Your task to perform on an android device: toggle show notifications on the lock screen Image 0: 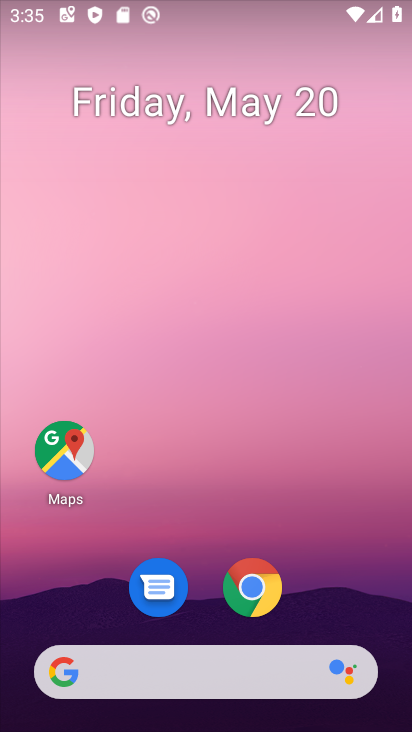
Step 0: drag from (311, 435) to (260, 0)
Your task to perform on an android device: toggle show notifications on the lock screen Image 1: 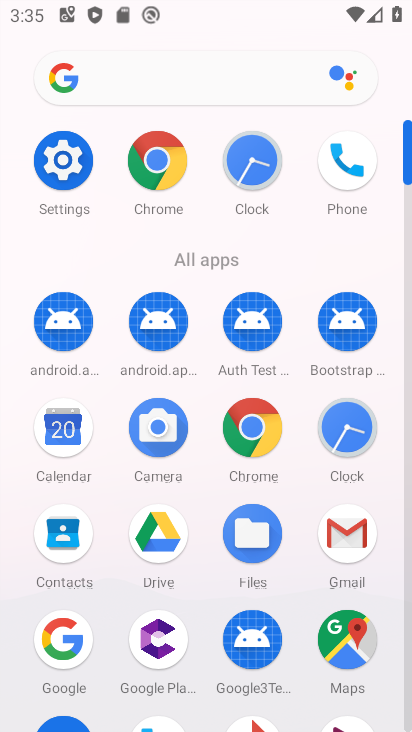
Step 1: click (61, 161)
Your task to perform on an android device: toggle show notifications on the lock screen Image 2: 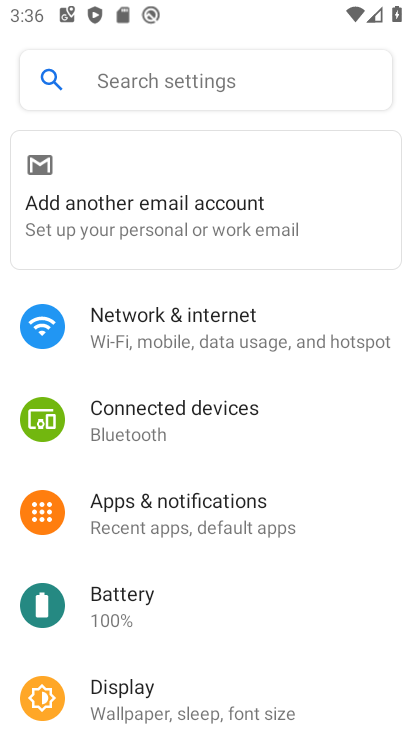
Step 2: drag from (274, 594) to (286, 287)
Your task to perform on an android device: toggle show notifications on the lock screen Image 3: 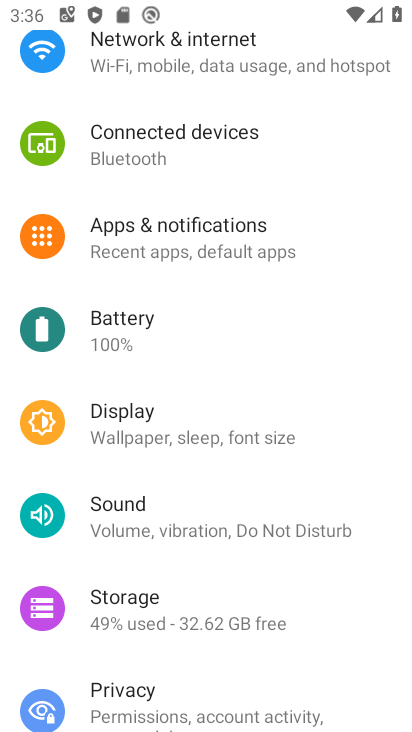
Step 3: drag from (268, 117) to (268, 324)
Your task to perform on an android device: toggle show notifications on the lock screen Image 4: 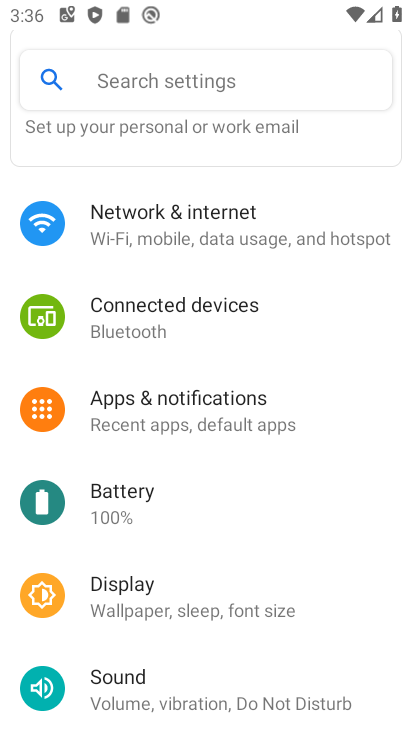
Step 4: click (249, 413)
Your task to perform on an android device: toggle show notifications on the lock screen Image 5: 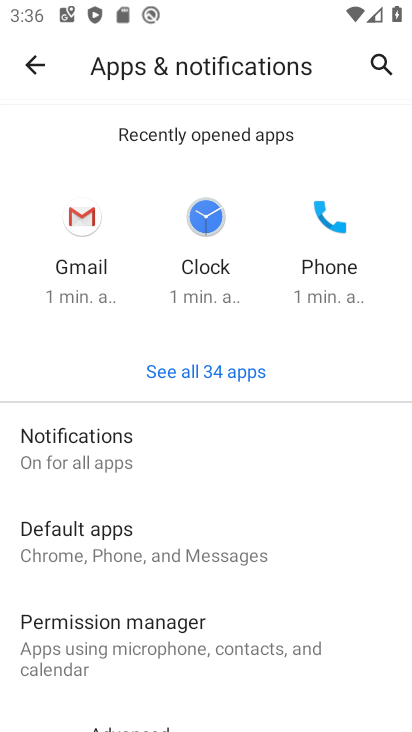
Step 5: click (168, 475)
Your task to perform on an android device: toggle show notifications on the lock screen Image 6: 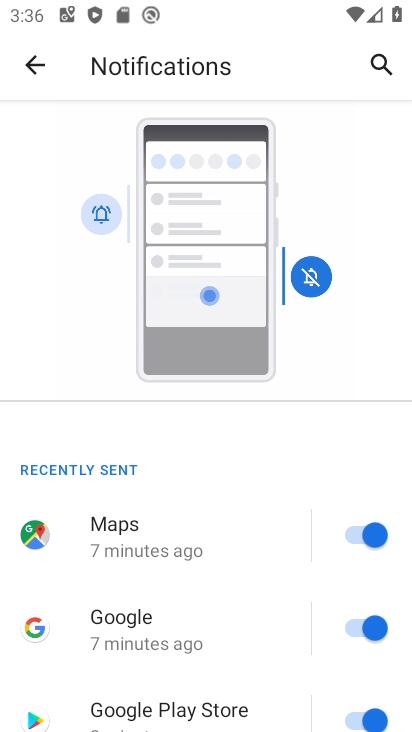
Step 6: drag from (177, 490) to (187, 113)
Your task to perform on an android device: toggle show notifications on the lock screen Image 7: 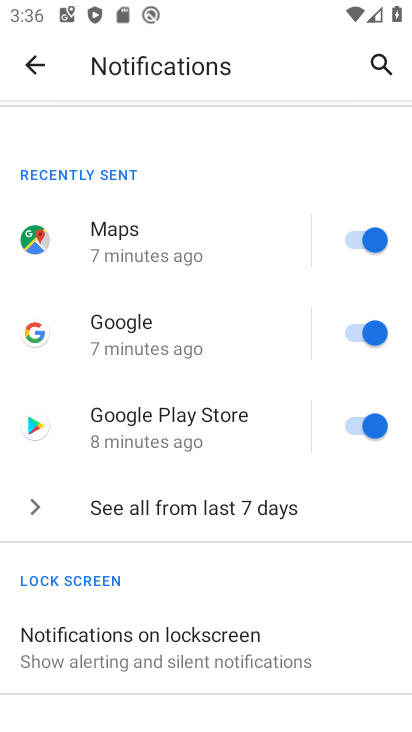
Step 7: drag from (254, 576) to (253, 177)
Your task to perform on an android device: toggle show notifications on the lock screen Image 8: 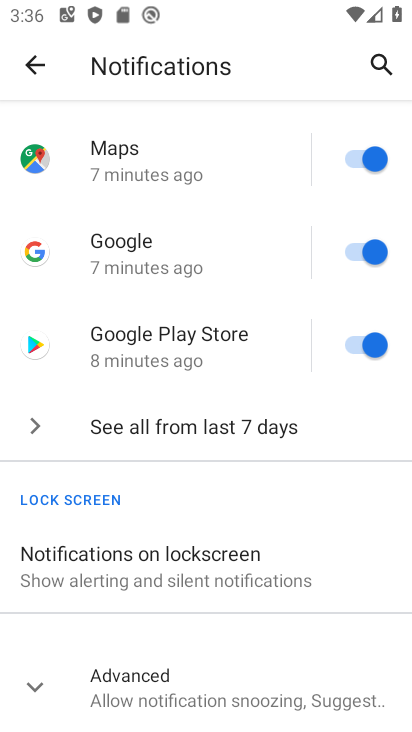
Step 8: click (234, 566)
Your task to perform on an android device: toggle show notifications on the lock screen Image 9: 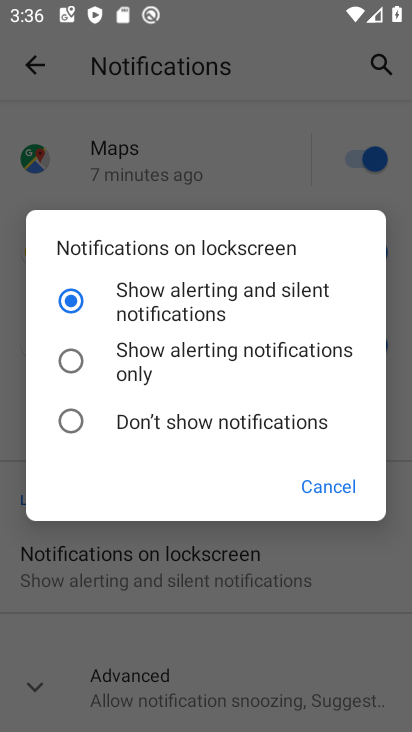
Step 9: click (201, 304)
Your task to perform on an android device: toggle show notifications on the lock screen Image 10: 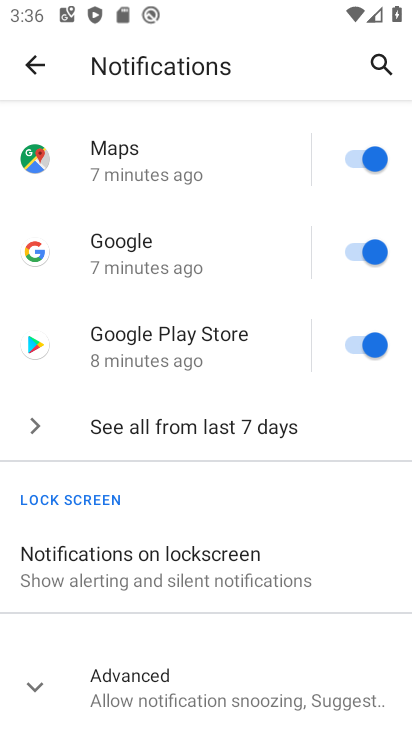
Step 10: task complete